Your task to perform on an android device: Open the phone app and click the voicemail tab. Image 0: 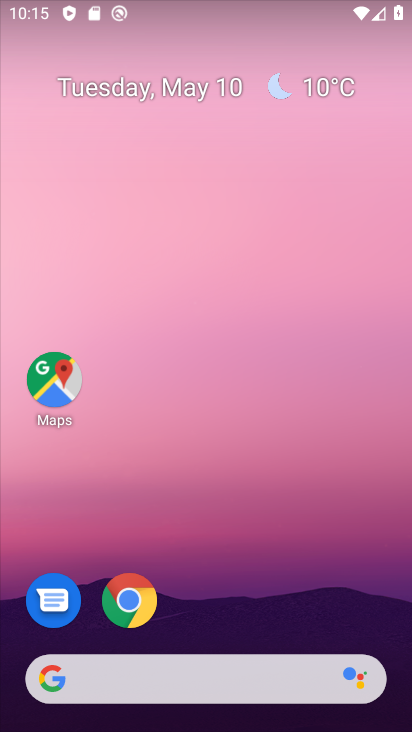
Step 0: drag from (257, 522) to (251, 127)
Your task to perform on an android device: Open the phone app and click the voicemail tab. Image 1: 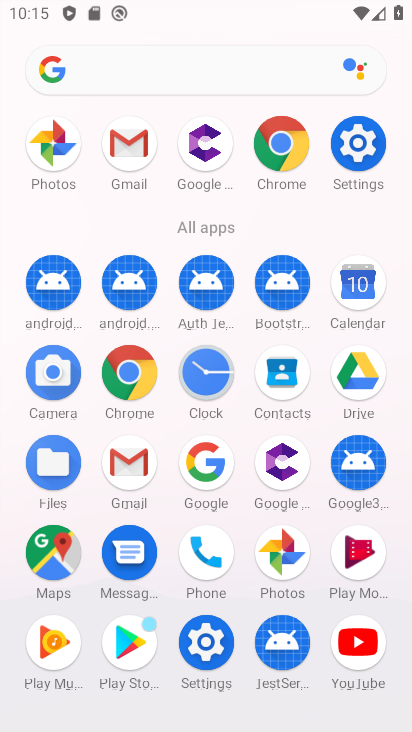
Step 1: click (211, 560)
Your task to perform on an android device: Open the phone app and click the voicemail tab. Image 2: 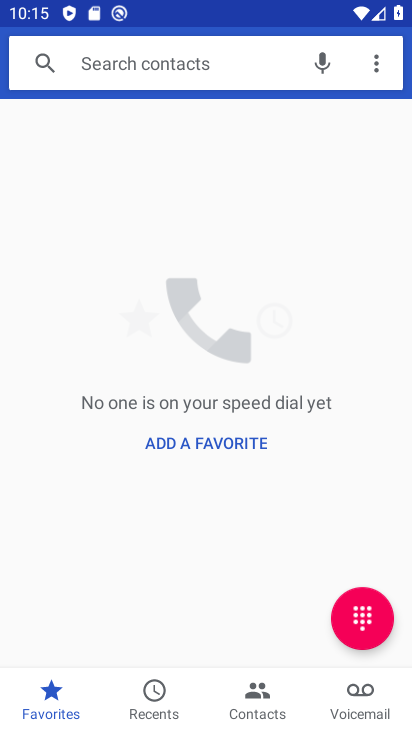
Step 2: click (362, 691)
Your task to perform on an android device: Open the phone app and click the voicemail tab. Image 3: 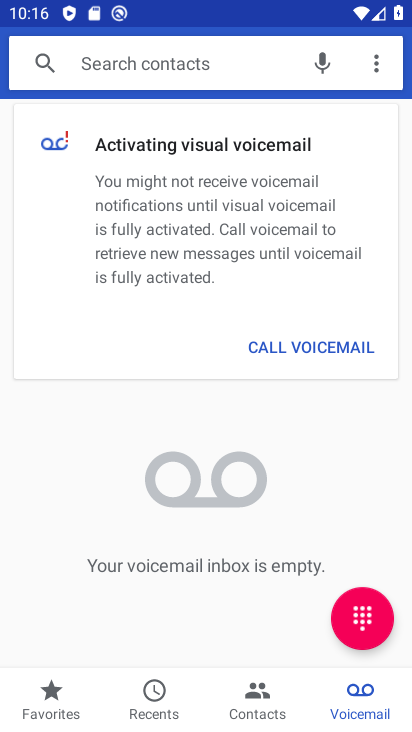
Step 3: task complete